Your task to perform on an android device: Go to CNN.com Image 0: 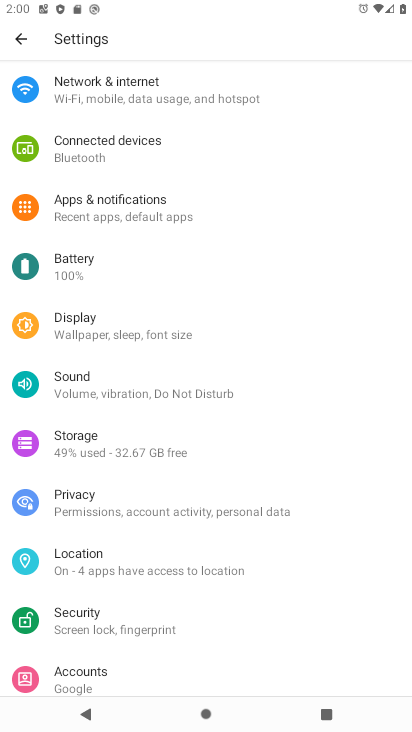
Step 0: press home button
Your task to perform on an android device: Go to CNN.com Image 1: 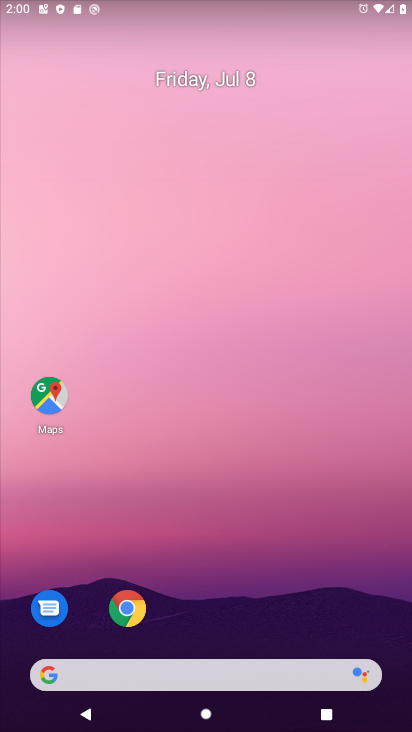
Step 1: click (186, 674)
Your task to perform on an android device: Go to CNN.com Image 2: 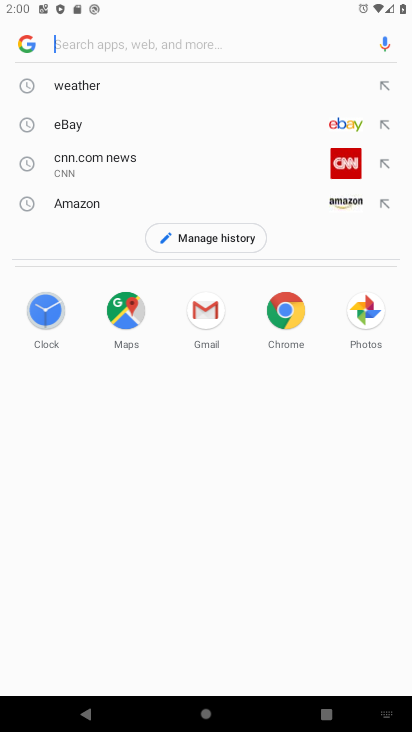
Step 2: click (185, 164)
Your task to perform on an android device: Go to CNN.com Image 3: 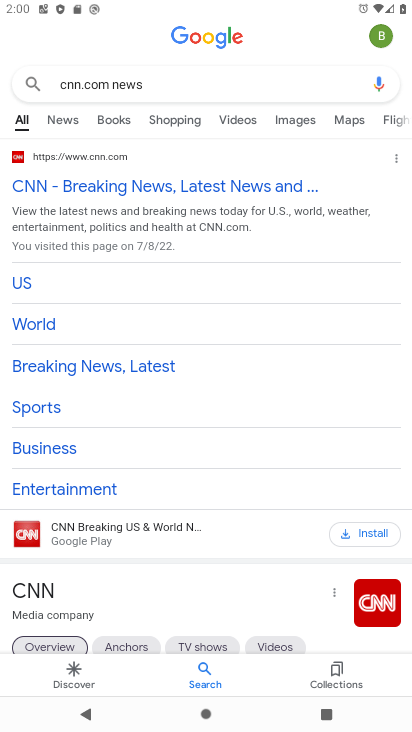
Step 3: click (223, 143)
Your task to perform on an android device: Go to CNN.com Image 4: 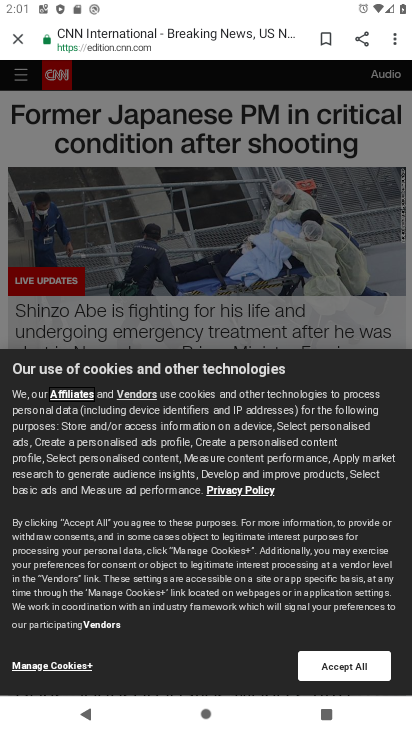
Step 4: task complete